Your task to perform on an android device: turn on sleep mode Image 0: 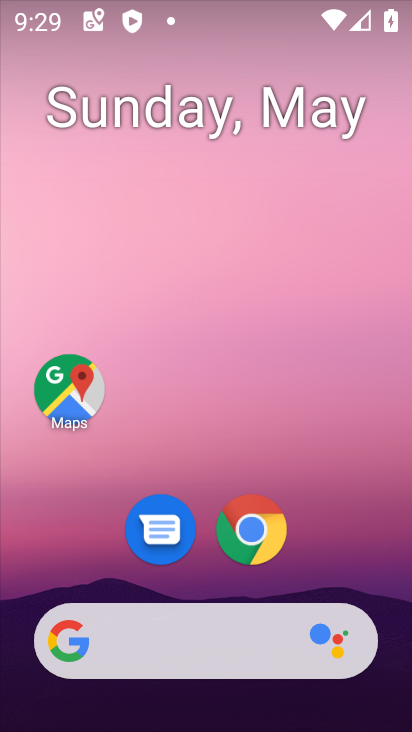
Step 0: drag from (378, 543) to (196, 36)
Your task to perform on an android device: turn on sleep mode Image 1: 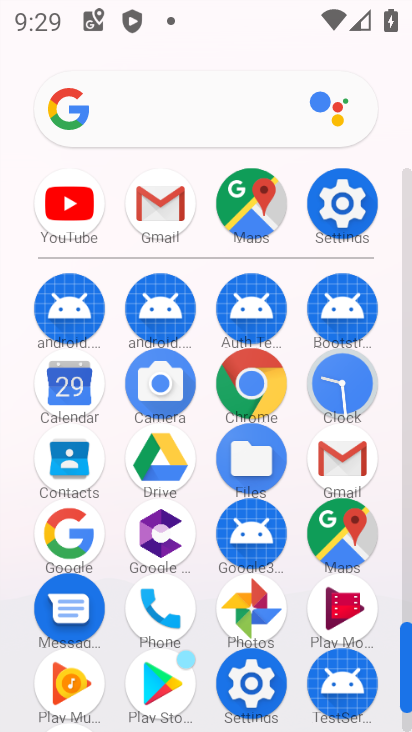
Step 1: click (349, 406)
Your task to perform on an android device: turn on sleep mode Image 2: 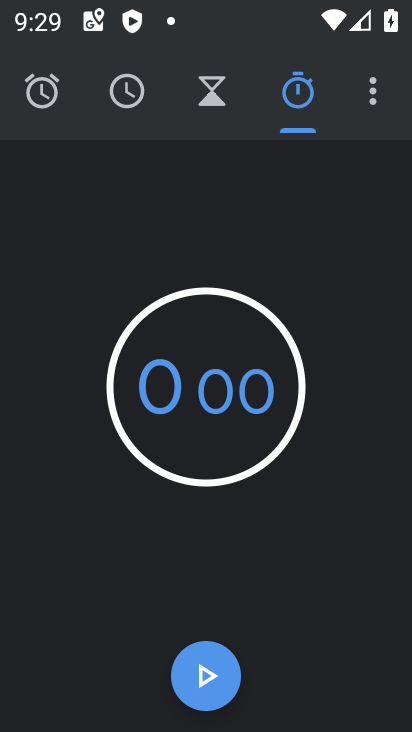
Step 2: press home button
Your task to perform on an android device: turn on sleep mode Image 3: 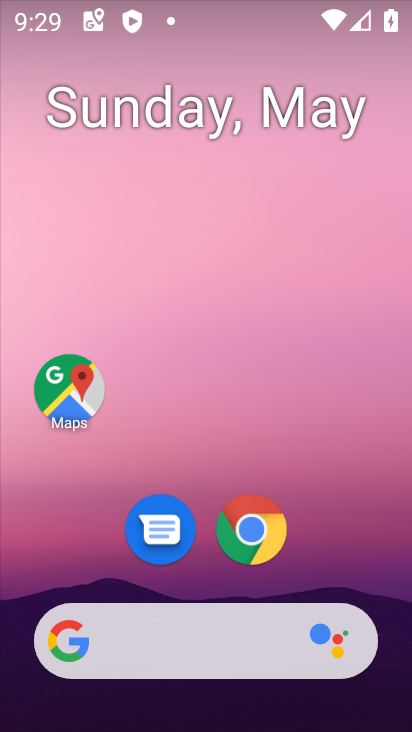
Step 3: drag from (353, 561) to (268, 0)
Your task to perform on an android device: turn on sleep mode Image 4: 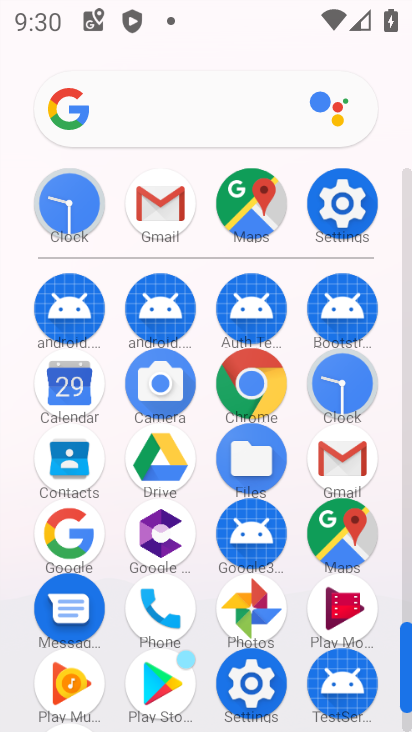
Step 4: click (348, 208)
Your task to perform on an android device: turn on sleep mode Image 5: 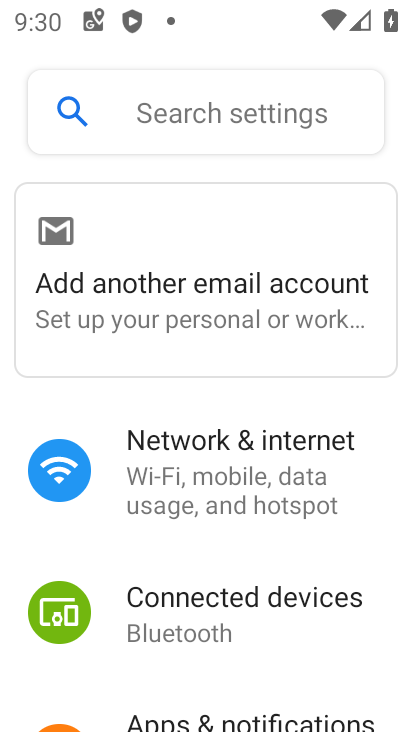
Step 5: drag from (227, 603) to (224, 61)
Your task to perform on an android device: turn on sleep mode Image 6: 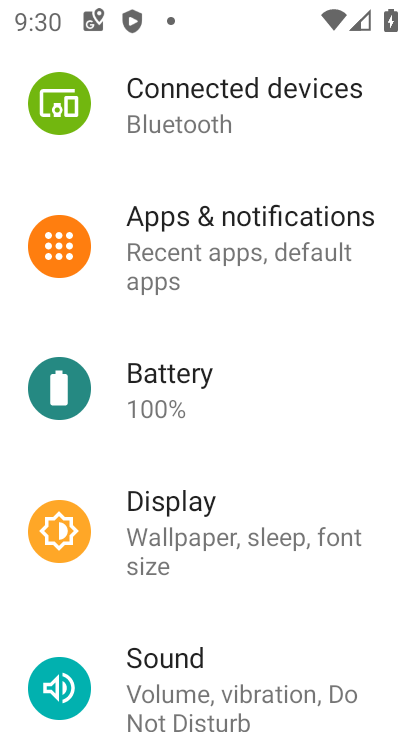
Step 6: drag from (178, 603) to (173, 367)
Your task to perform on an android device: turn on sleep mode Image 7: 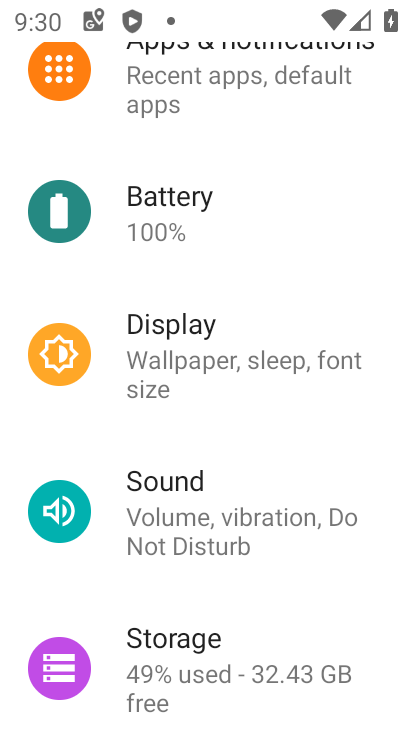
Step 7: drag from (155, 636) to (155, 368)
Your task to perform on an android device: turn on sleep mode Image 8: 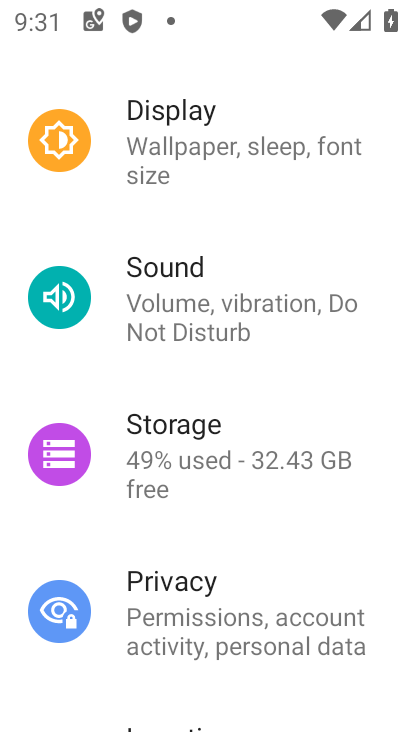
Step 8: click (240, 182)
Your task to perform on an android device: turn on sleep mode Image 9: 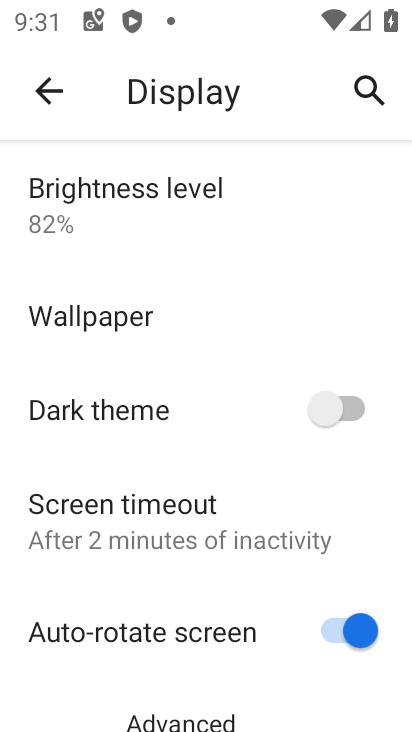
Step 9: task complete